Your task to perform on an android device: Go to Google Image 0: 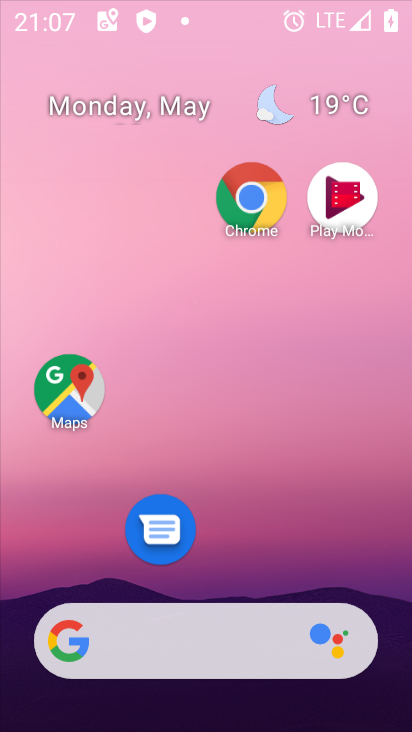
Step 0: press home button
Your task to perform on an android device: Go to Google Image 1: 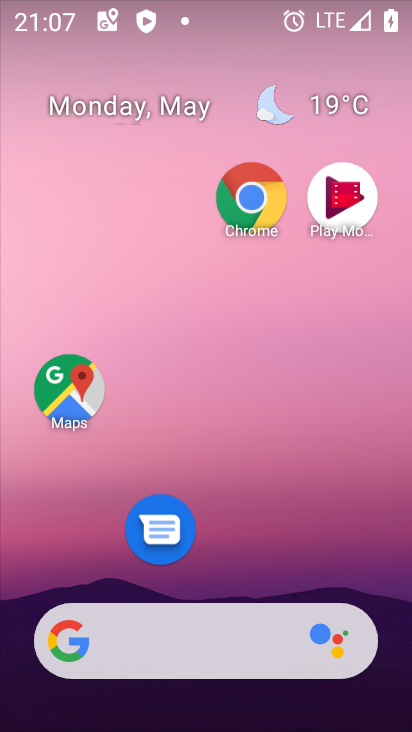
Step 1: click (211, 654)
Your task to perform on an android device: Go to Google Image 2: 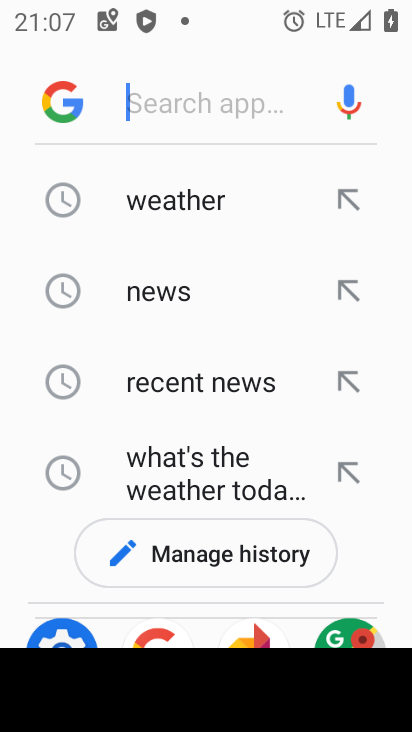
Step 2: task complete